Your task to perform on an android device: stop showing notifications on the lock screen Image 0: 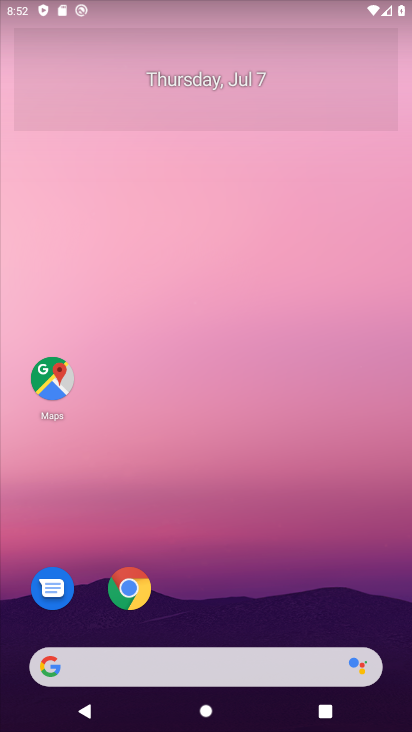
Step 0: press home button
Your task to perform on an android device: stop showing notifications on the lock screen Image 1: 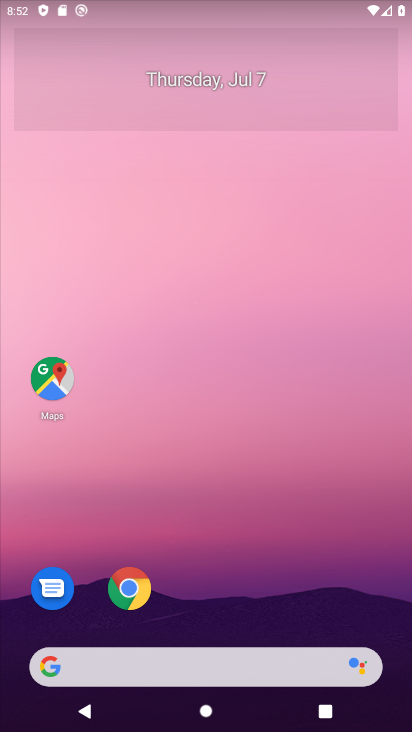
Step 1: drag from (210, 626) to (233, 22)
Your task to perform on an android device: stop showing notifications on the lock screen Image 2: 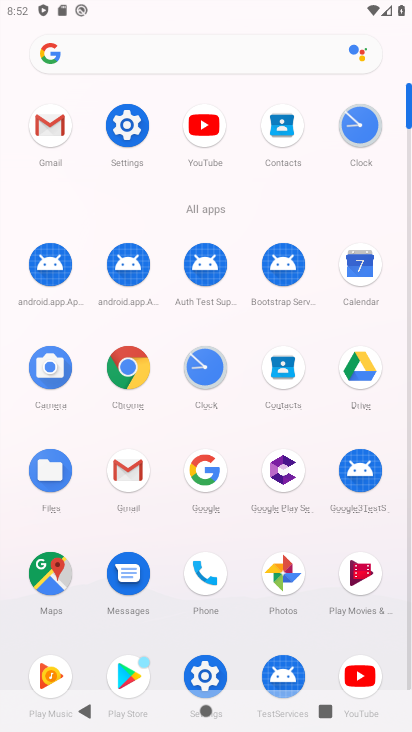
Step 2: click (124, 122)
Your task to perform on an android device: stop showing notifications on the lock screen Image 3: 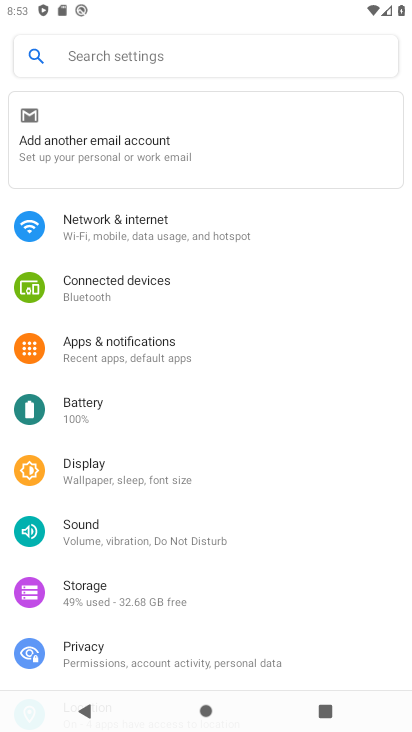
Step 3: click (178, 351)
Your task to perform on an android device: stop showing notifications on the lock screen Image 4: 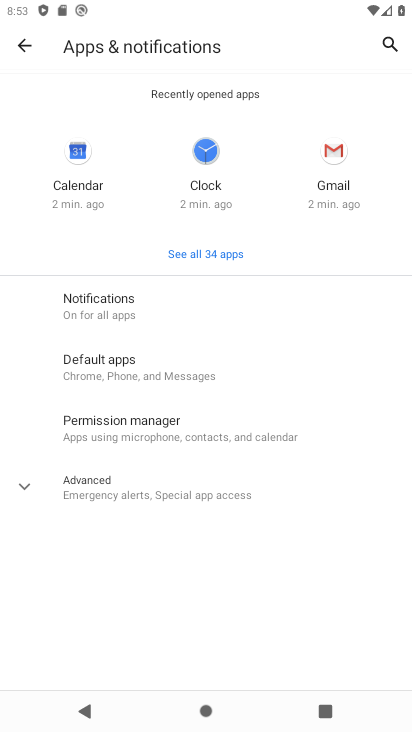
Step 4: click (146, 305)
Your task to perform on an android device: stop showing notifications on the lock screen Image 5: 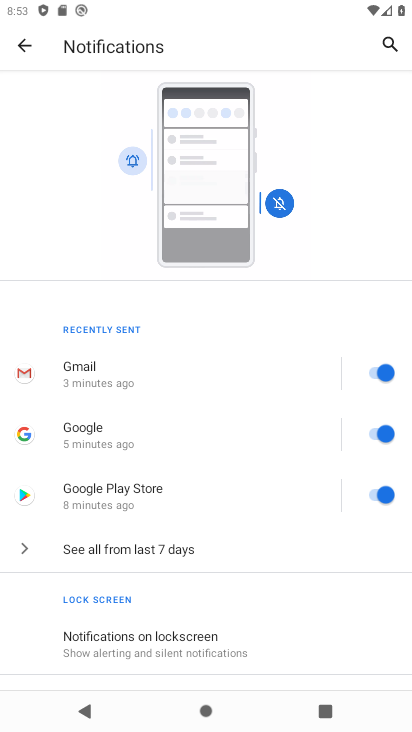
Step 5: click (237, 642)
Your task to perform on an android device: stop showing notifications on the lock screen Image 6: 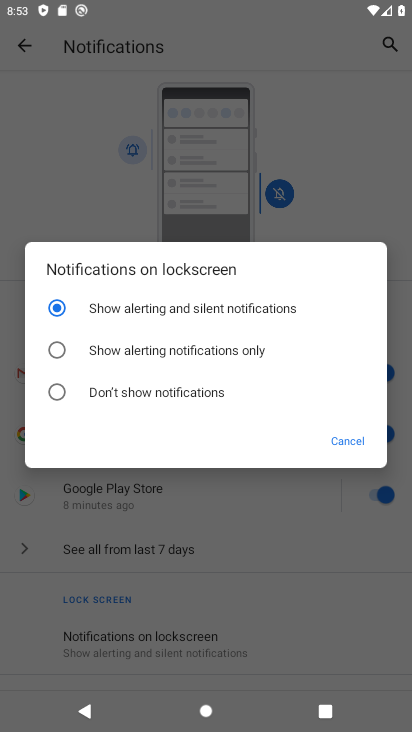
Step 6: click (53, 386)
Your task to perform on an android device: stop showing notifications on the lock screen Image 7: 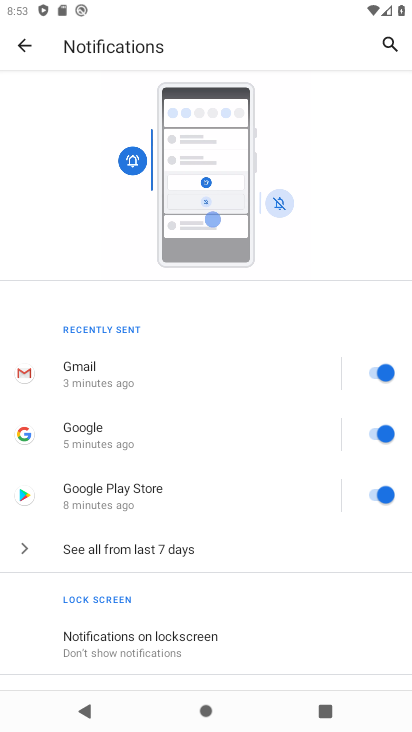
Step 7: task complete